Your task to perform on an android device: Check the news Image 0: 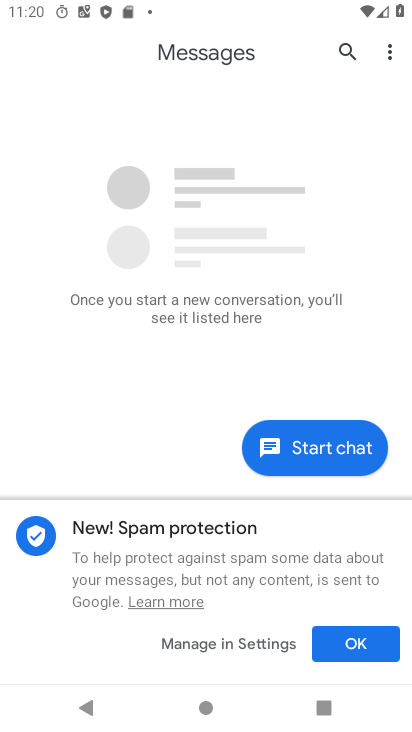
Step 0: press home button
Your task to perform on an android device: Check the news Image 1: 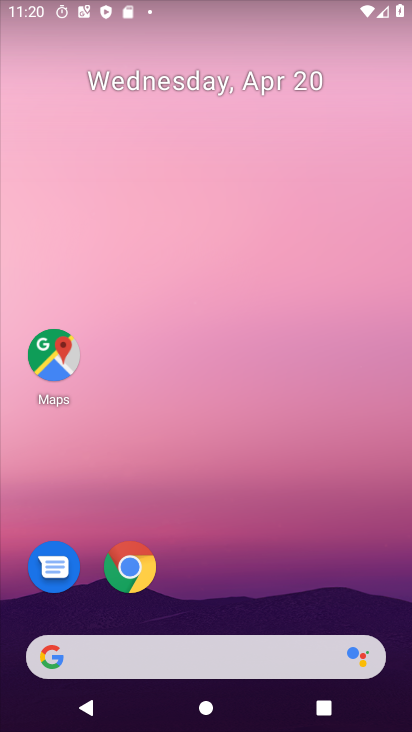
Step 1: drag from (253, 601) to (312, 247)
Your task to perform on an android device: Check the news Image 2: 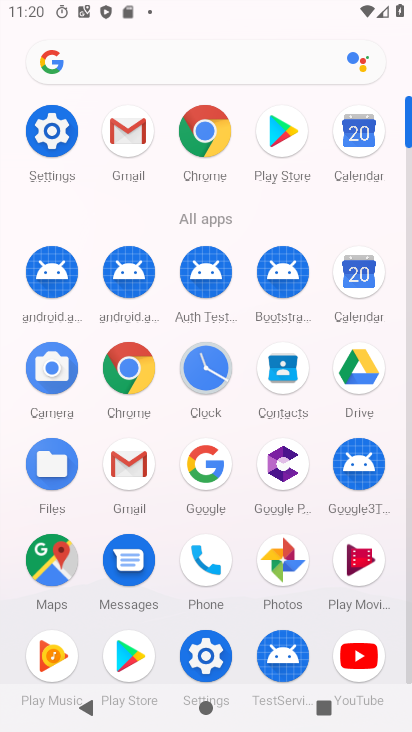
Step 2: drag from (241, 524) to (252, 335)
Your task to perform on an android device: Check the news Image 3: 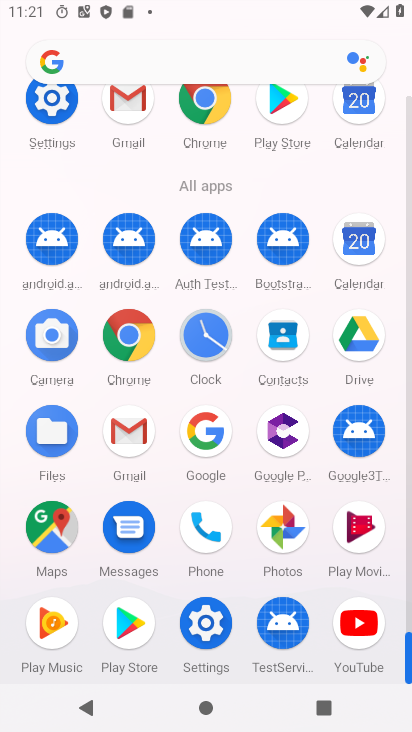
Step 3: click (195, 431)
Your task to perform on an android device: Check the news Image 4: 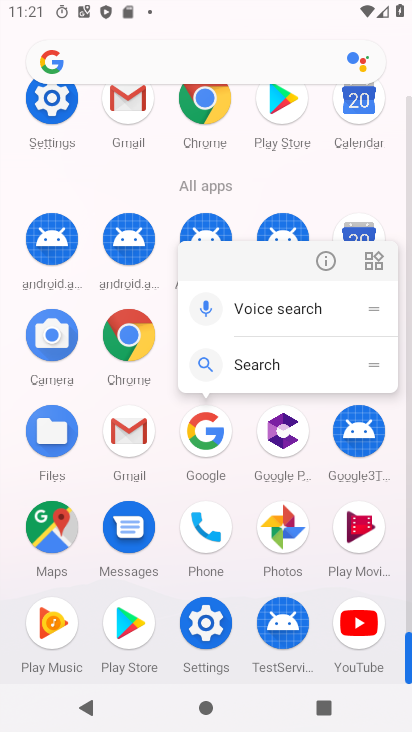
Step 4: click (314, 264)
Your task to perform on an android device: Check the news Image 5: 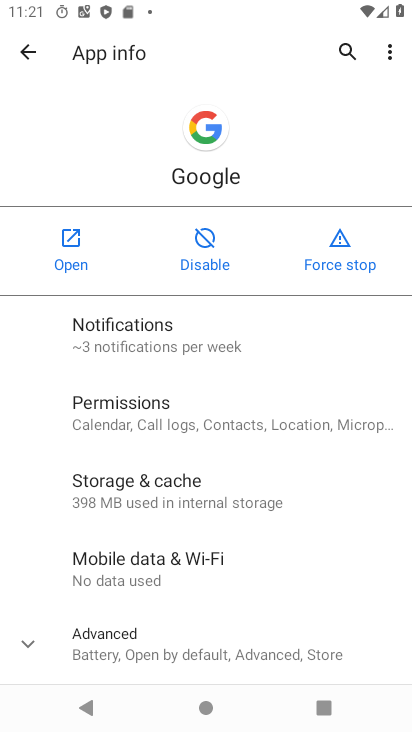
Step 5: click (74, 258)
Your task to perform on an android device: Check the news Image 6: 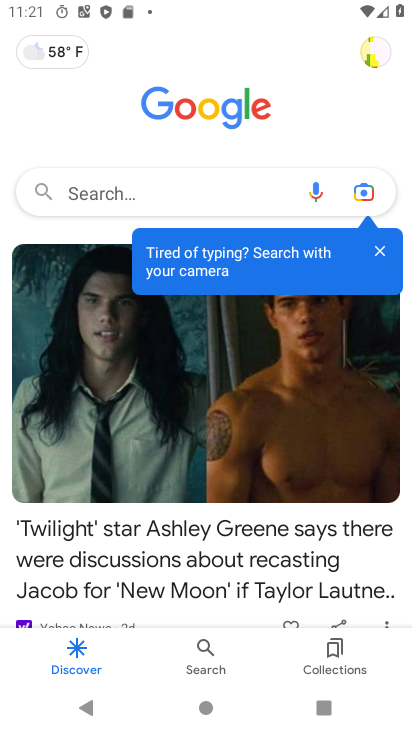
Step 6: task complete